Your task to perform on an android device: Play the last video I watched on Youtube Image 0: 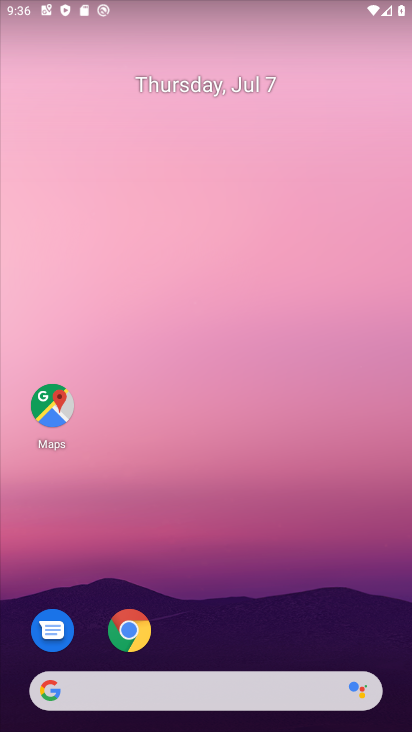
Step 0: drag from (199, 600) to (155, 176)
Your task to perform on an android device: Play the last video I watched on Youtube Image 1: 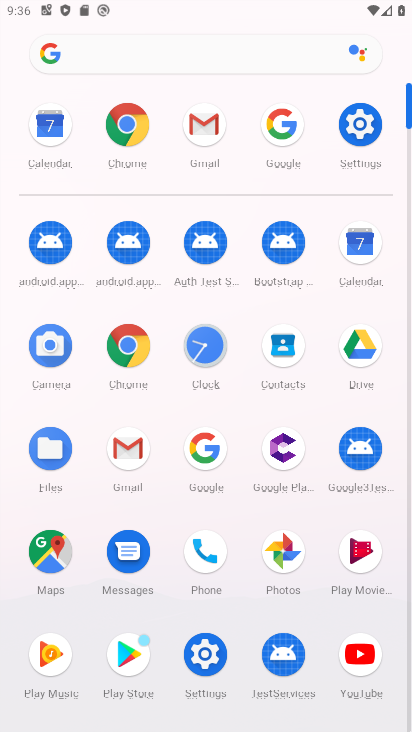
Step 1: click (347, 636)
Your task to perform on an android device: Play the last video I watched on Youtube Image 2: 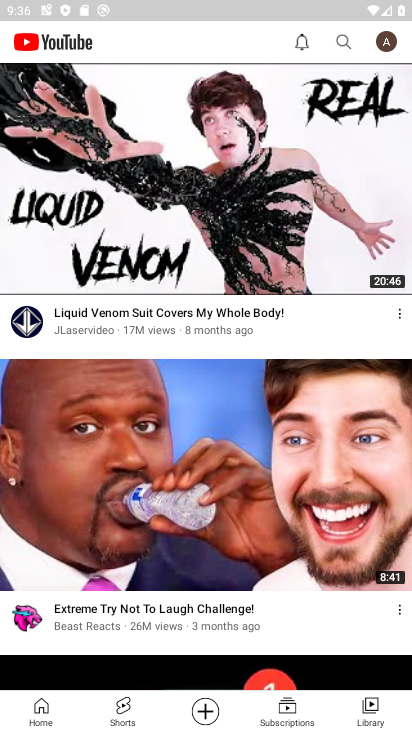
Step 2: click (367, 711)
Your task to perform on an android device: Play the last video I watched on Youtube Image 3: 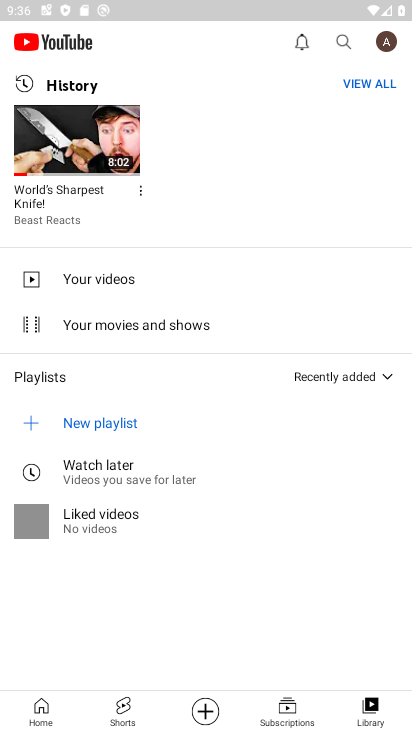
Step 3: click (67, 160)
Your task to perform on an android device: Play the last video I watched on Youtube Image 4: 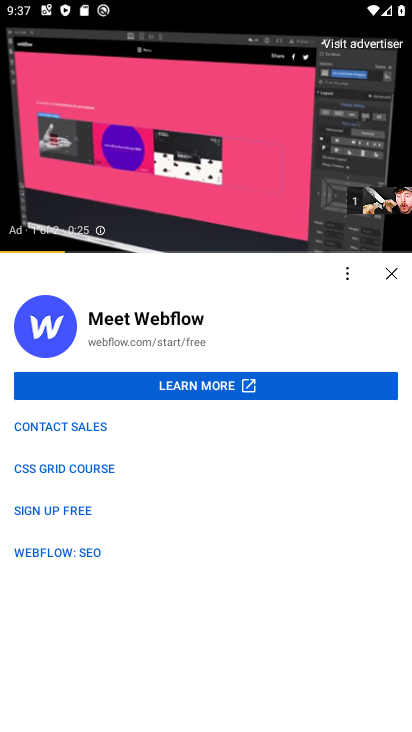
Step 4: click (202, 156)
Your task to perform on an android device: Play the last video I watched on Youtube Image 5: 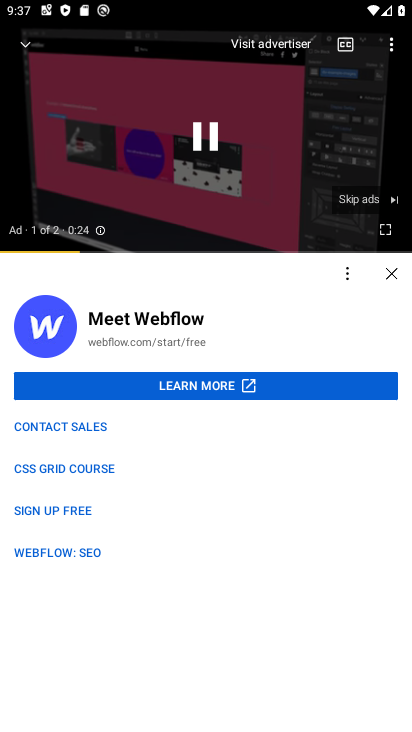
Step 5: click (202, 156)
Your task to perform on an android device: Play the last video I watched on Youtube Image 6: 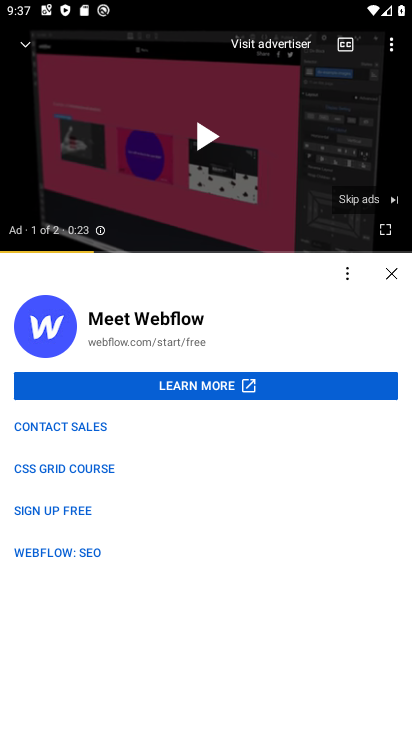
Step 6: task complete